Your task to perform on an android device: turn pop-ups on in chrome Image 0: 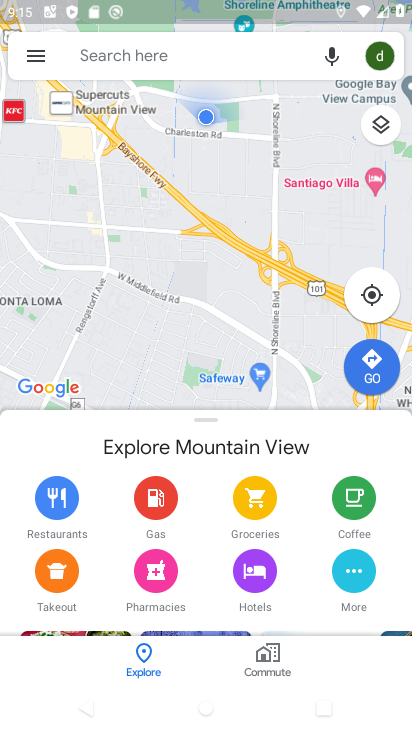
Step 0: press home button
Your task to perform on an android device: turn pop-ups on in chrome Image 1: 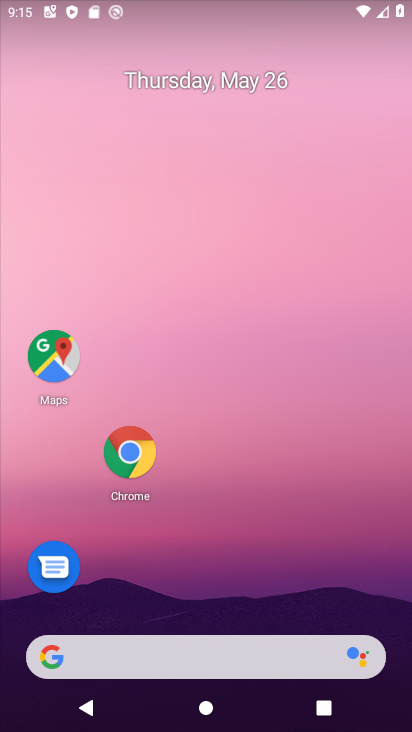
Step 1: click (136, 452)
Your task to perform on an android device: turn pop-ups on in chrome Image 2: 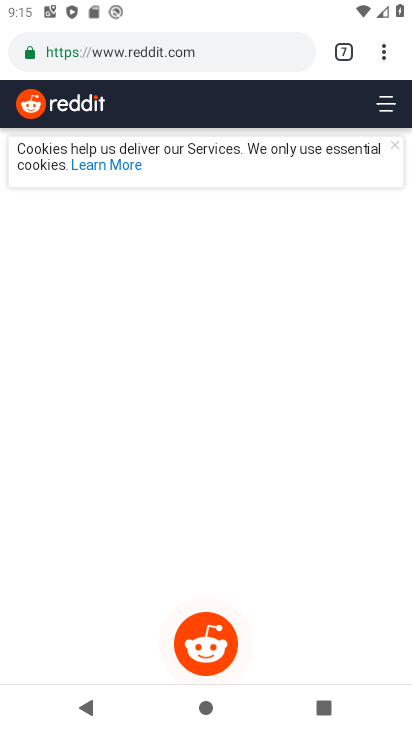
Step 2: drag from (379, 50) to (229, 599)
Your task to perform on an android device: turn pop-ups on in chrome Image 3: 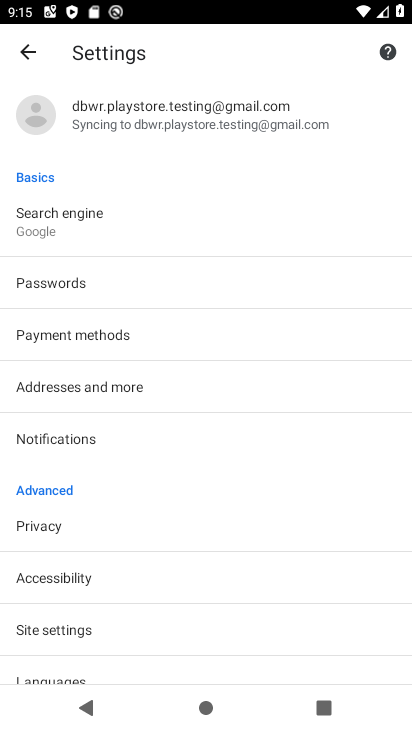
Step 3: click (108, 630)
Your task to perform on an android device: turn pop-ups on in chrome Image 4: 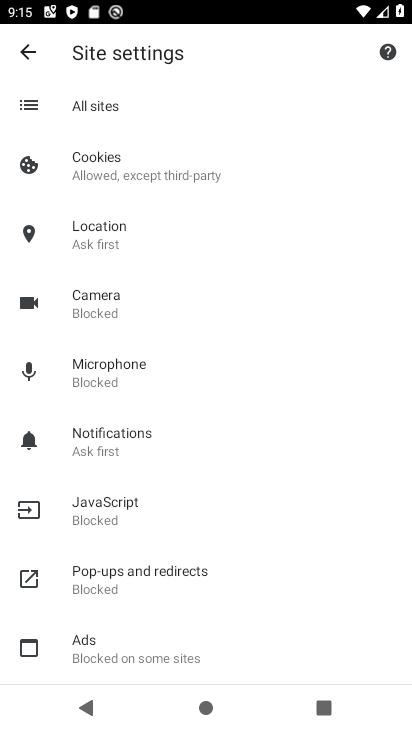
Step 4: click (143, 579)
Your task to perform on an android device: turn pop-ups on in chrome Image 5: 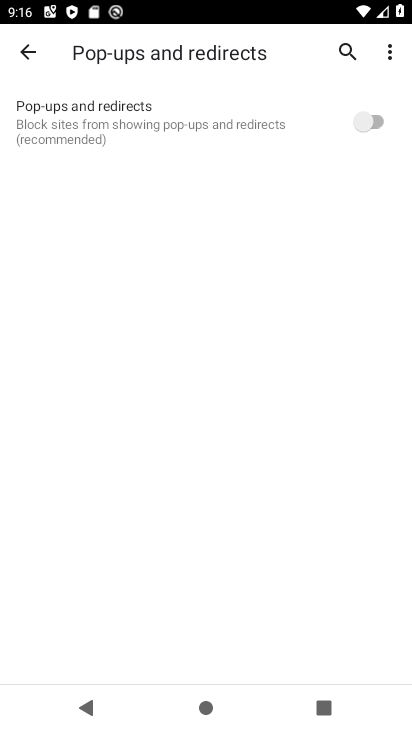
Step 5: click (374, 121)
Your task to perform on an android device: turn pop-ups on in chrome Image 6: 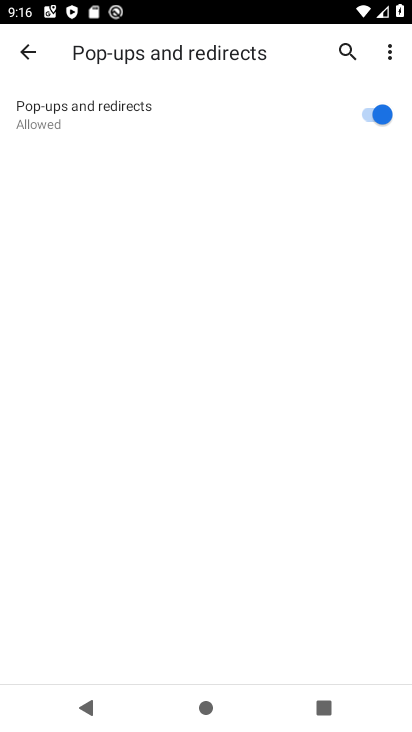
Step 6: task complete